Your task to perform on an android device: Open Yahoo.com Image 0: 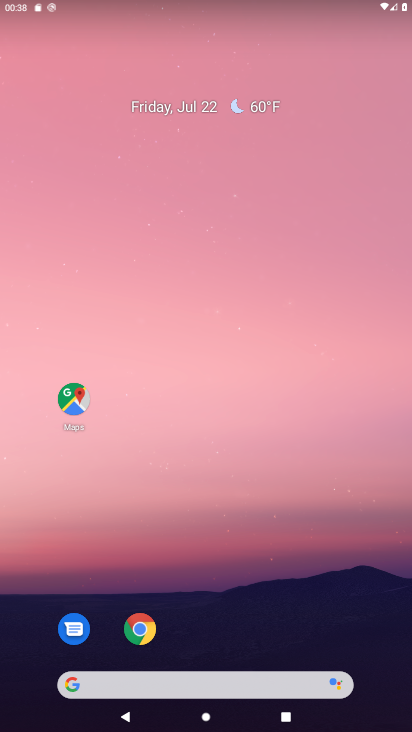
Step 0: click (146, 623)
Your task to perform on an android device: Open Yahoo.com Image 1: 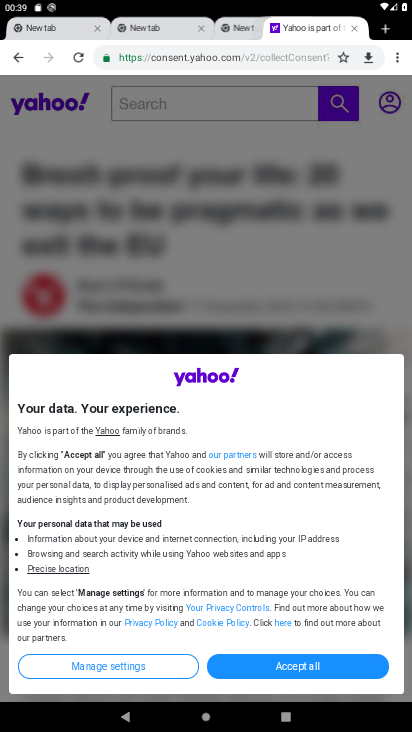
Step 1: task complete